Your task to perform on an android device: Open Yahoo.com Image 0: 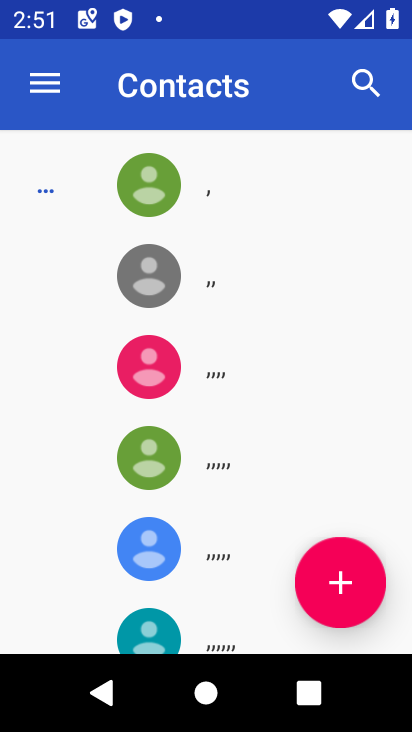
Step 0: press home button
Your task to perform on an android device: Open Yahoo.com Image 1: 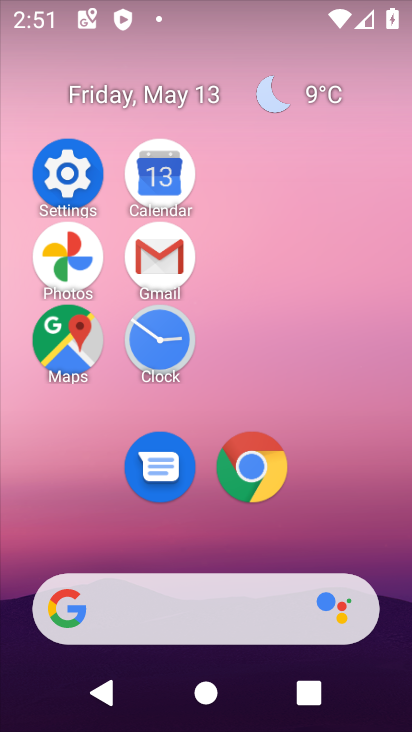
Step 1: click (240, 443)
Your task to perform on an android device: Open Yahoo.com Image 2: 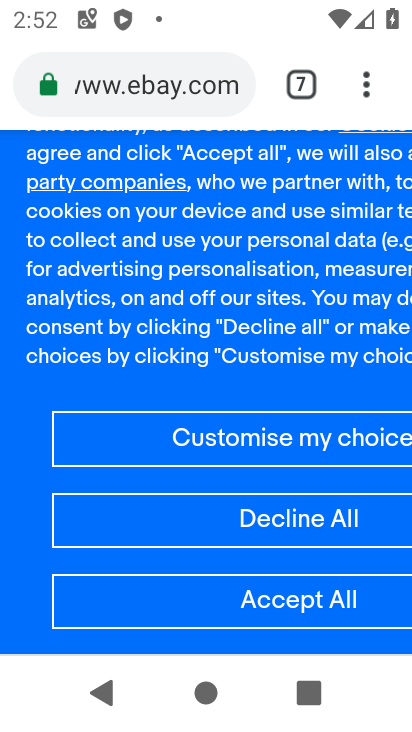
Step 2: click (300, 98)
Your task to perform on an android device: Open Yahoo.com Image 3: 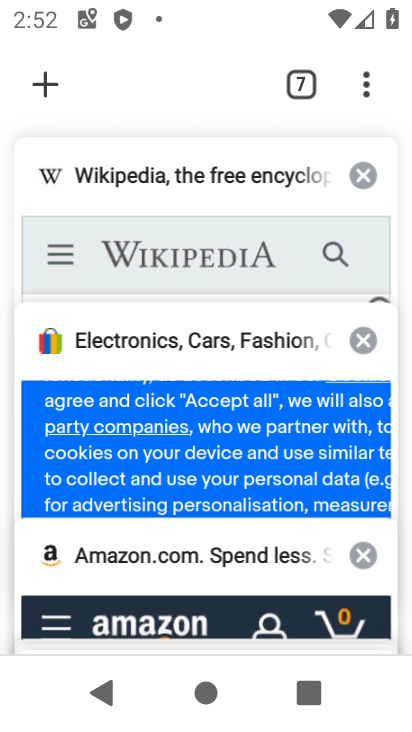
Step 3: drag from (221, 189) to (212, 506)
Your task to perform on an android device: Open Yahoo.com Image 4: 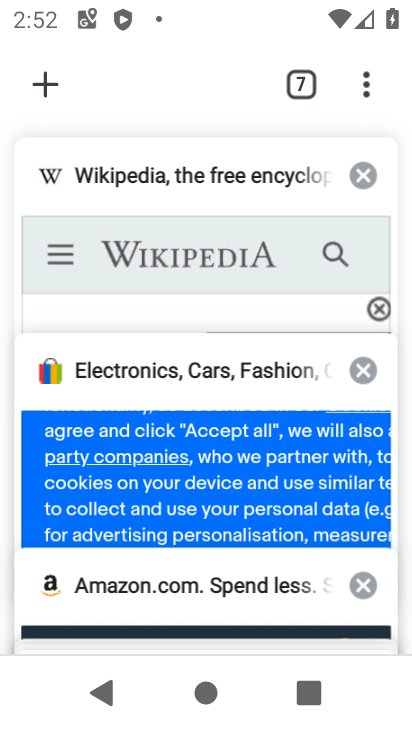
Step 4: drag from (223, 199) to (224, 522)
Your task to perform on an android device: Open Yahoo.com Image 5: 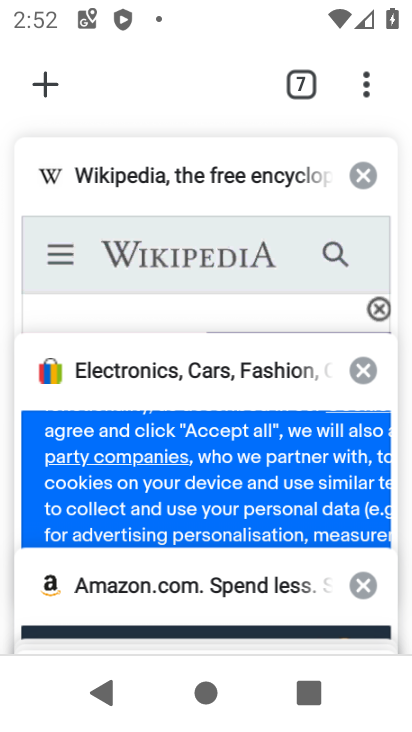
Step 5: click (56, 72)
Your task to perform on an android device: Open Yahoo.com Image 6: 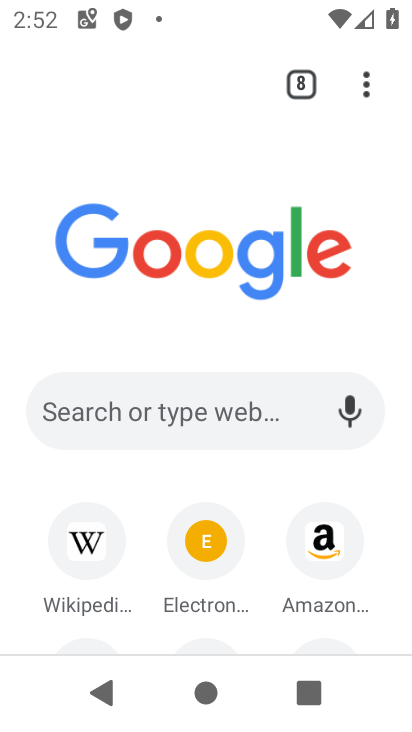
Step 6: drag from (269, 484) to (241, 200)
Your task to perform on an android device: Open Yahoo.com Image 7: 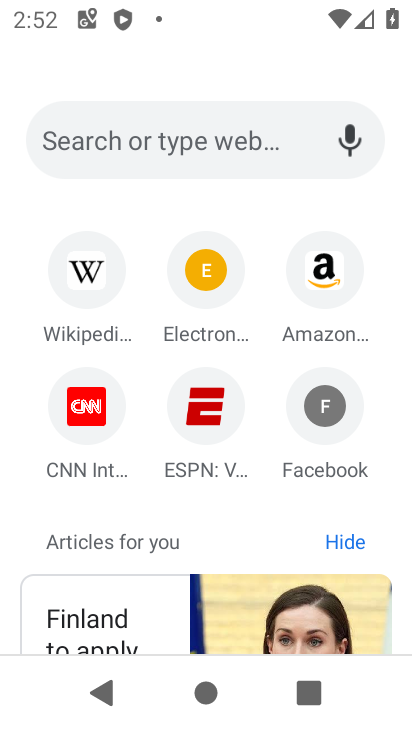
Step 7: click (197, 153)
Your task to perform on an android device: Open Yahoo.com Image 8: 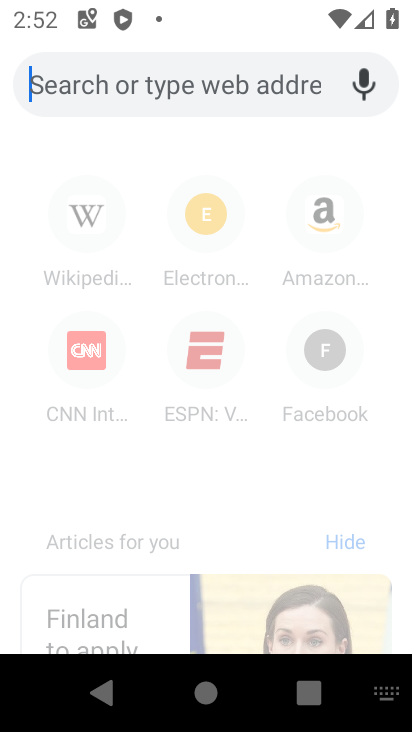
Step 8: type "yahoo"
Your task to perform on an android device: Open Yahoo.com Image 9: 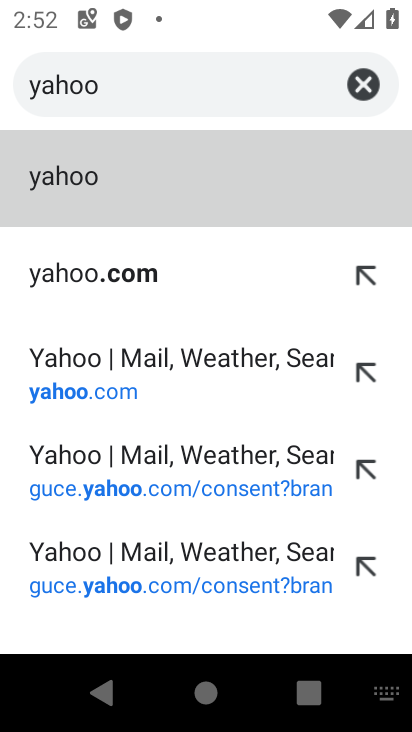
Step 9: click (116, 292)
Your task to perform on an android device: Open Yahoo.com Image 10: 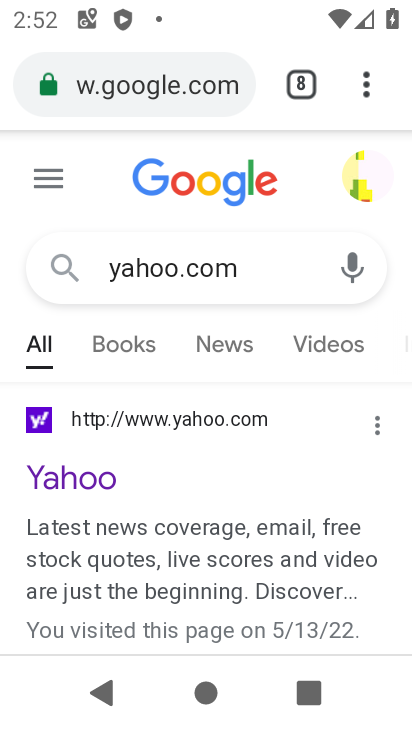
Step 10: click (98, 467)
Your task to perform on an android device: Open Yahoo.com Image 11: 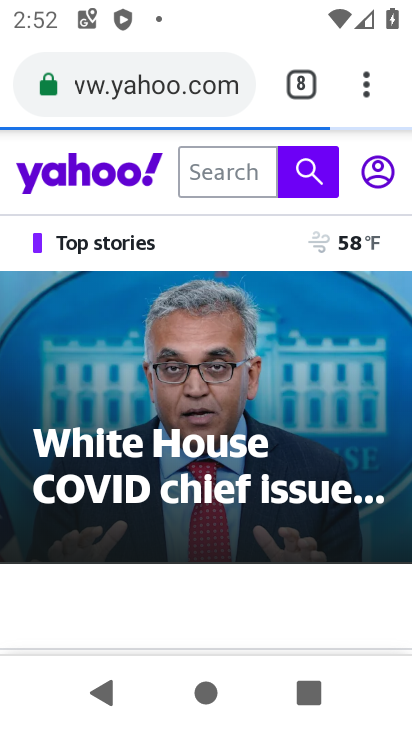
Step 11: task complete